Your task to perform on an android device: Go to wifi settings Image 0: 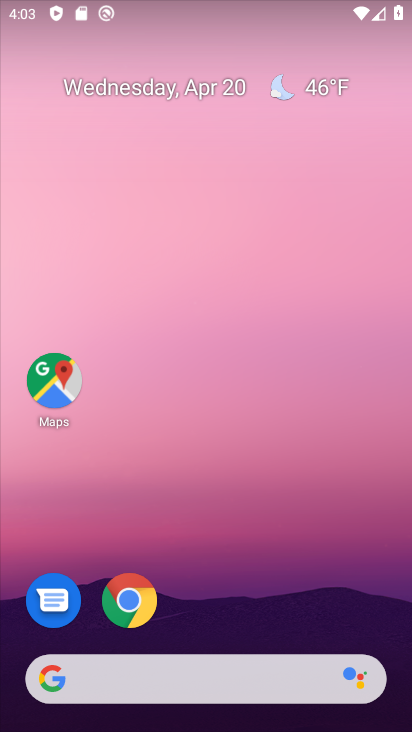
Step 0: drag from (217, 624) to (265, 30)
Your task to perform on an android device: Go to wifi settings Image 1: 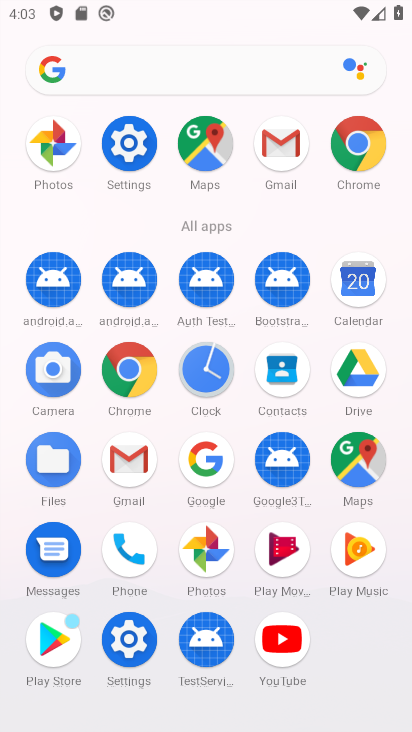
Step 1: click (125, 139)
Your task to perform on an android device: Go to wifi settings Image 2: 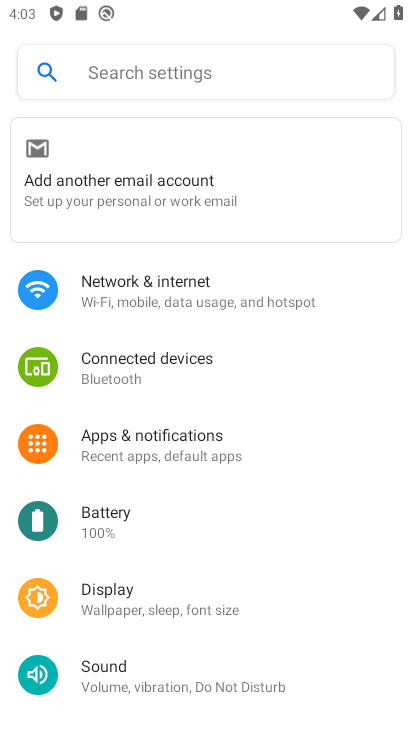
Step 2: click (164, 293)
Your task to perform on an android device: Go to wifi settings Image 3: 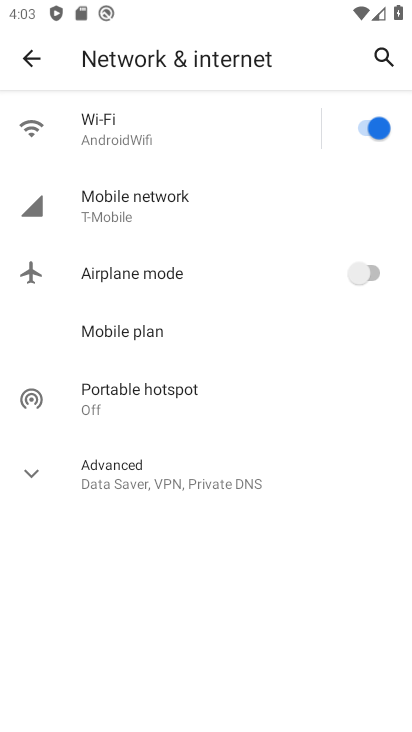
Step 3: click (205, 128)
Your task to perform on an android device: Go to wifi settings Image 4: 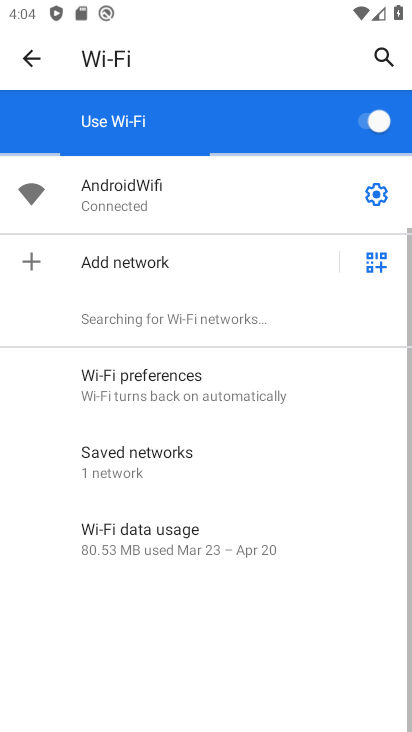
Step 4: task complete